Your task to perform on an android device: Open Maps and search for coffee Image 0: 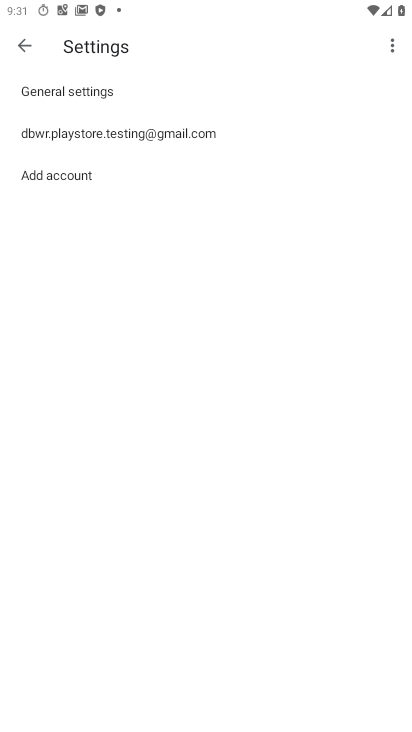
Step 0: press home button
Your task to perform on an android device: Open Maps and search for coffee Image 1: 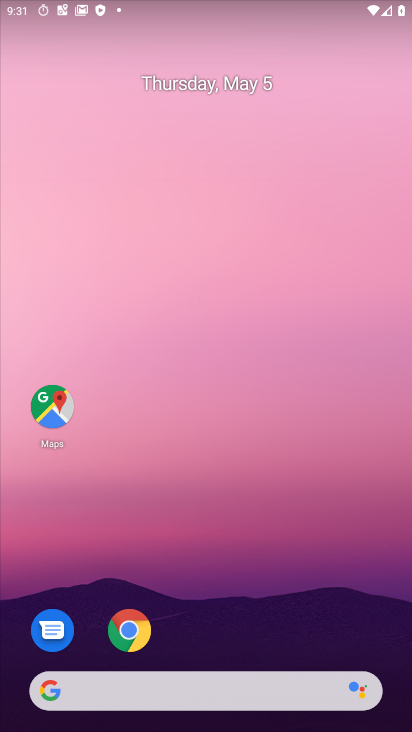
Step 1: click (52, 400)
Your task to perform on an android device: Open Maps and search for coffee Image 2: 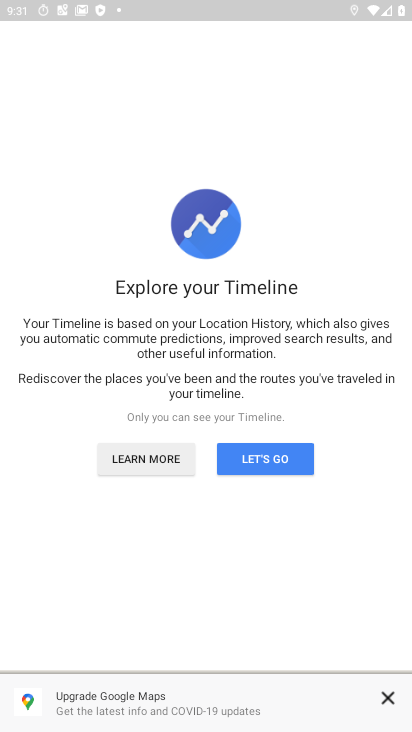
Step 2: press back button
Your task to perform on an android device: Open Maps and search for coffee Image 3: 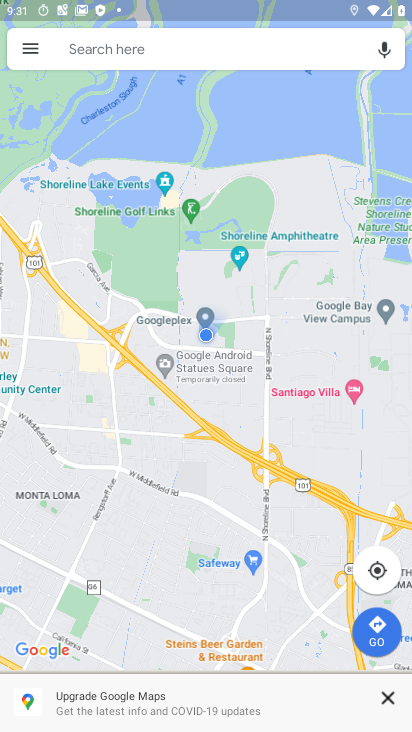
Step 3: click (167, 59)
Your task to perform on an android device: Open Maps and search for coffee Image 4: 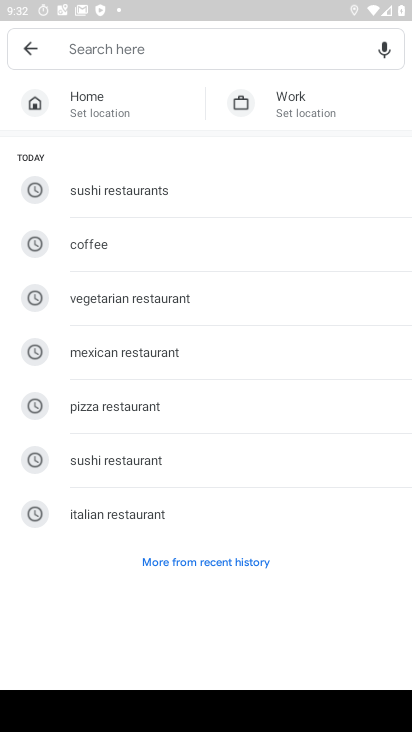
Step 4: click (83, 247)
Your task to perform on an android device: Open Maps and search for coffee Image 5: 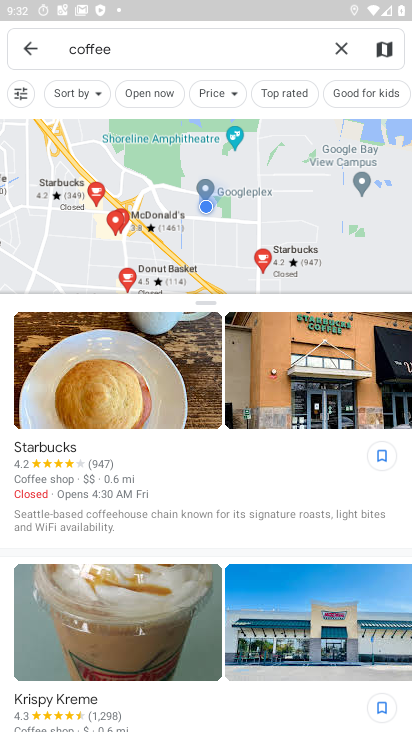
Step 5: task complete